Your task to perform on an android device: Open calendar and show me the second week of next month Image 0: 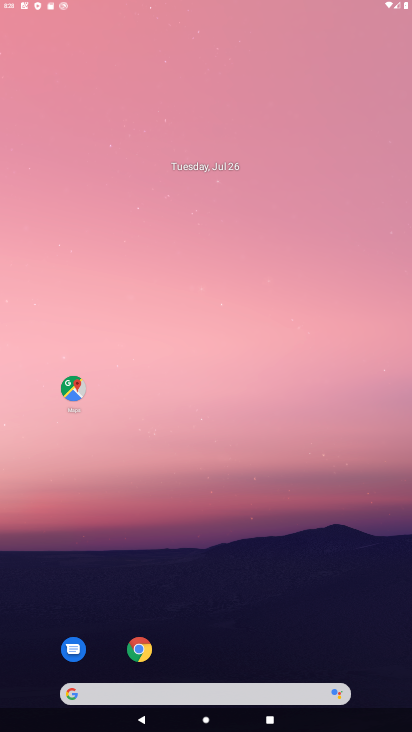
Step 0: click (298, 118)
Your task to perform on an android device: Open calendar and show me the second week of next month Image 1: 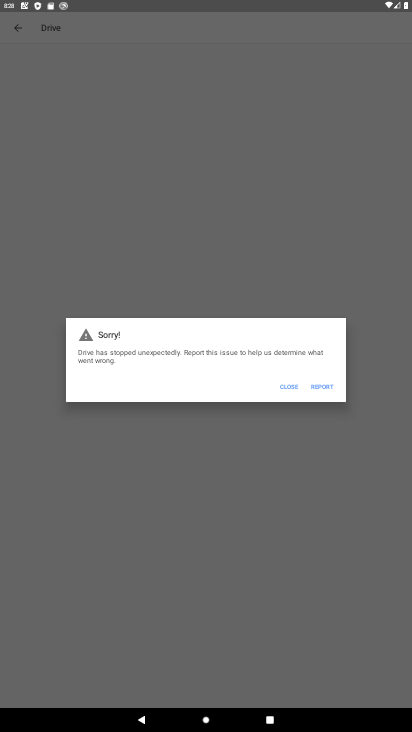
Step 1: press home button
Your task to perform on an android device: Open calendar and show me the second week of next month Image 2: 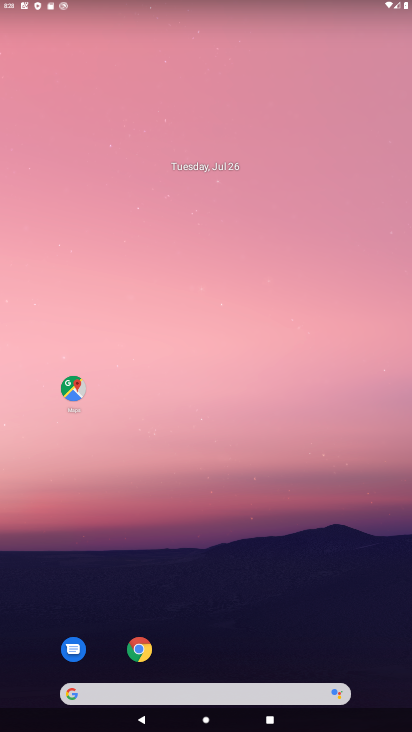
Step 2: click (202, 170)
Your task to perform on an android device: Open calendar and show me the second week of next month Image 3: 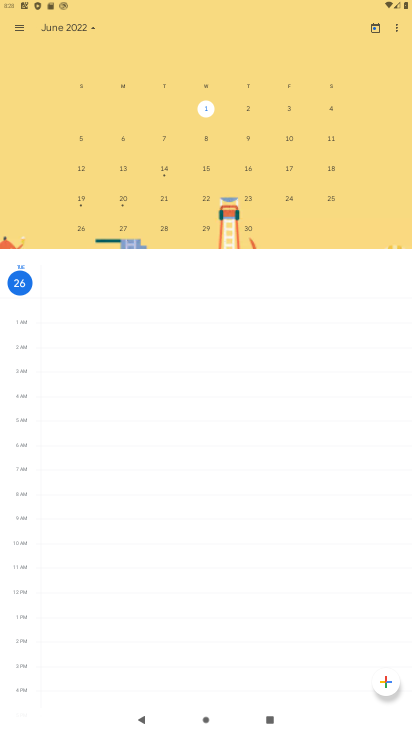
Step 3: drag from (362, 157) to (8, 141)
Your task to perform on an android device: Open calendar and show me the second week of next month Image 4: 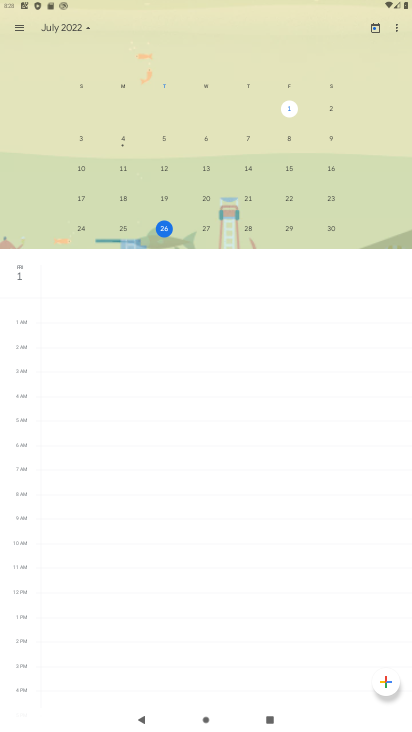
Step 4: click (8, 141)
Your task to perform on an android device: Open calendar and show me the second week of next month Image 5: 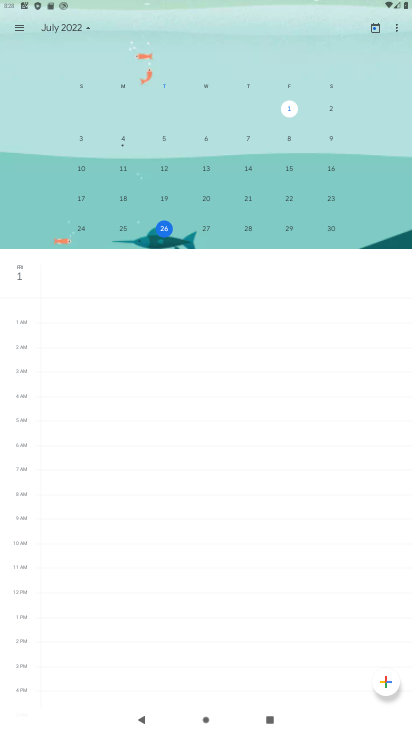
Step 5: click (295, 137)
Your task to perform on an android device: Open calendar and show me the second week of next month Image 6: 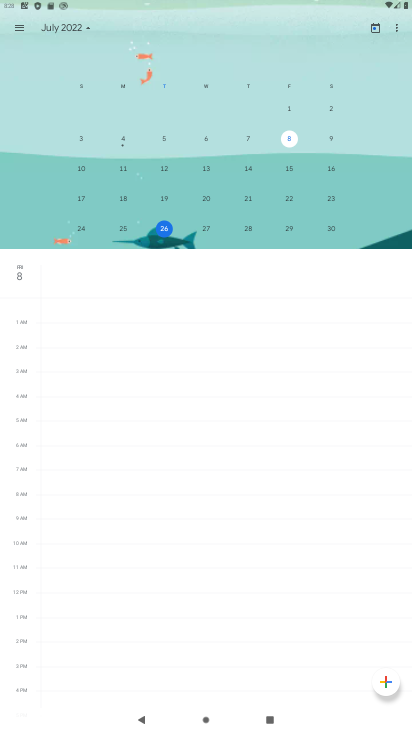
Step 6: task complete